Your task to perform on an android device: turn notification dots off Image 0: 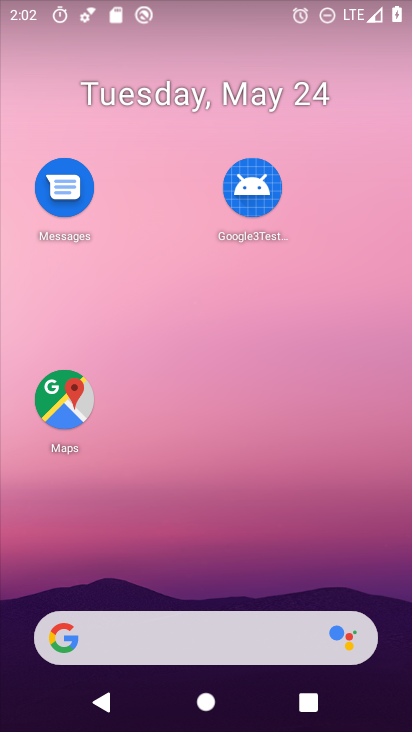
Step 0: drag from (222, 581) to (197, 0)
Your task to perform on an android device: turn notification dots off Image 1: 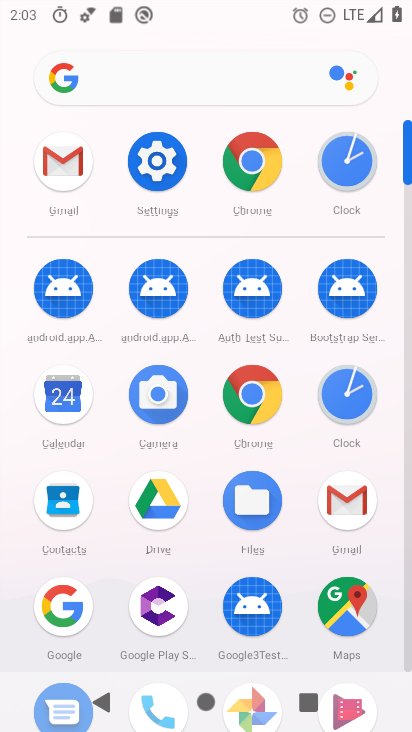
Step 1: click (162, 160)
Your task to perform on an android device: turn notification dots off Image 2: 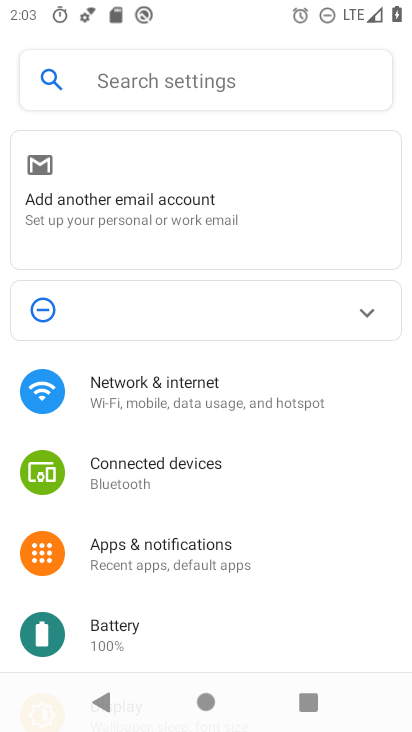
Step 2: drag from (137, 611) to (137, 258)
Your task to perform on an android device: turn notification dots off Image 3: 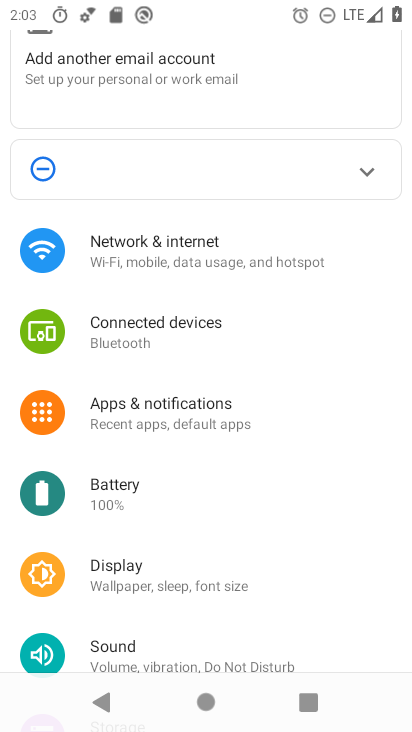
Step 3: click (146, 427)
Your task to perform on an android device: turn notification dots off Image 4: 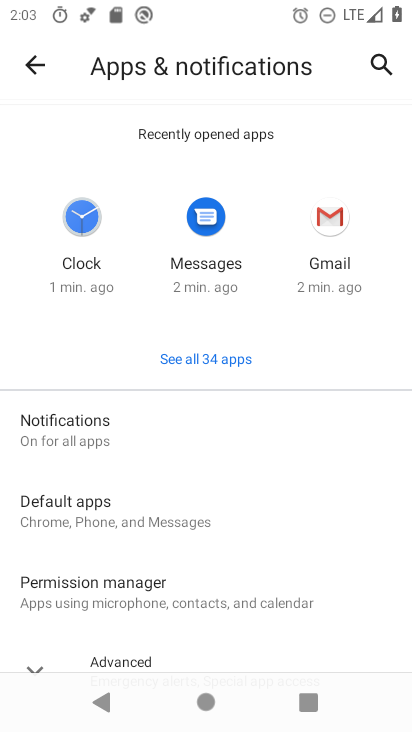
Step 4: click (76, 433)
Your task to perform on an android device: turn notification dots off Image 5: 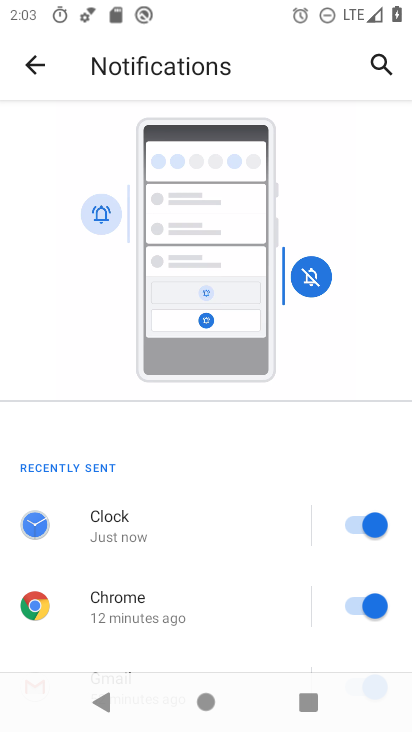
Step 5: click (206, 255)
Your task to perform on an android device: turn notification dots off Image 6: 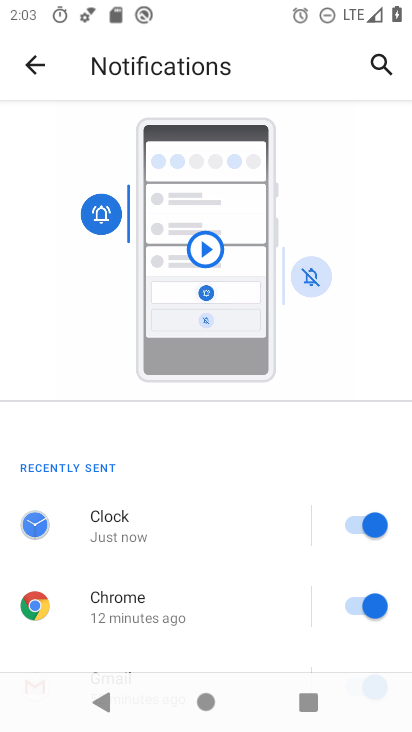
Step 6: drag from (137, 380) to (137, 290)
Your task to perform on an android device: turn notification dots off Image 7: 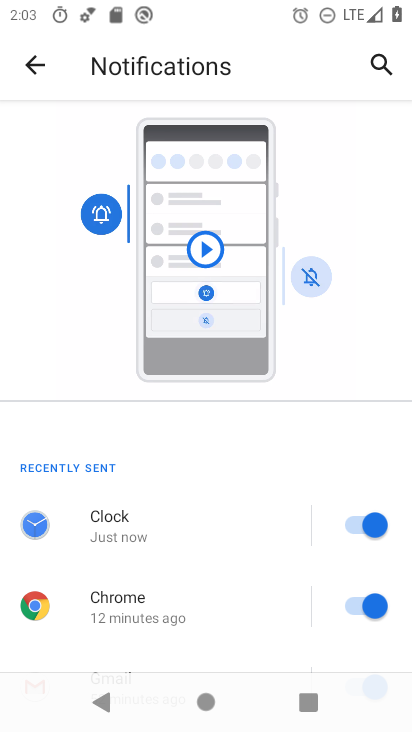
Step 7: click (219, 226)
Your task to perform on an android device: turn notification dots off Image 8: 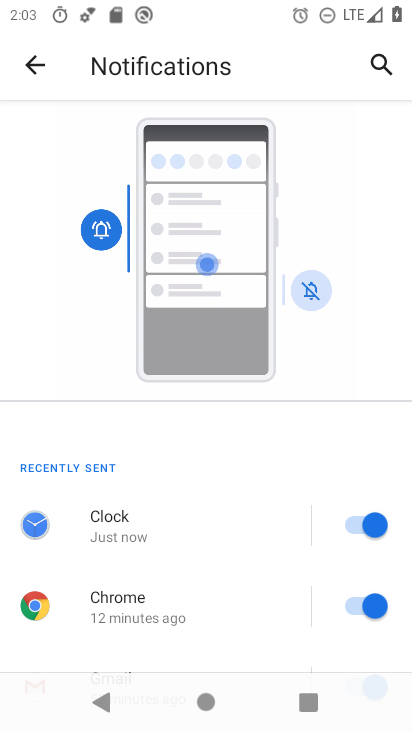
Step 8: drag from (166, 499) to (166, 193)
Your task to perform on an android device: turn notification dots off Image 9: 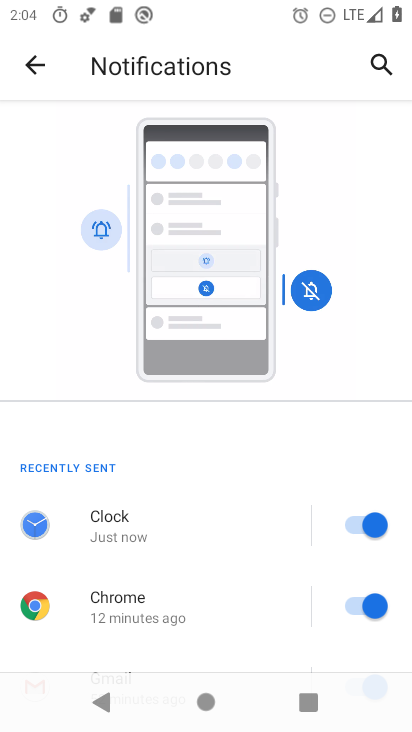
Step 9: drag from (264, 529) to (314, 223)
Your task to perform on an android device: turn notification dots off Image 10: 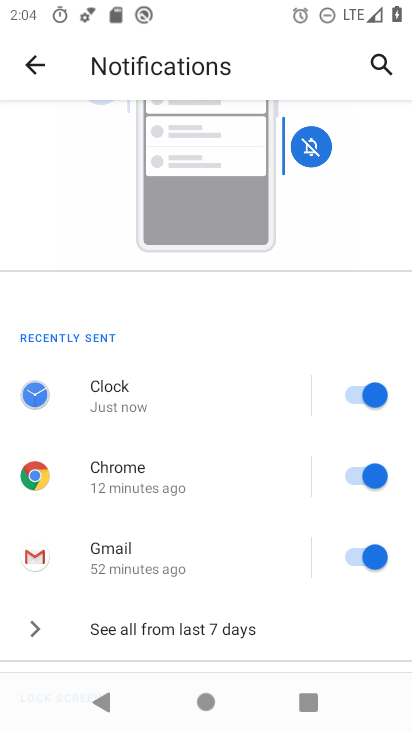
Step 10: click (163, 205)
Your task to perform on an android device: turn notification dots off Image 11: 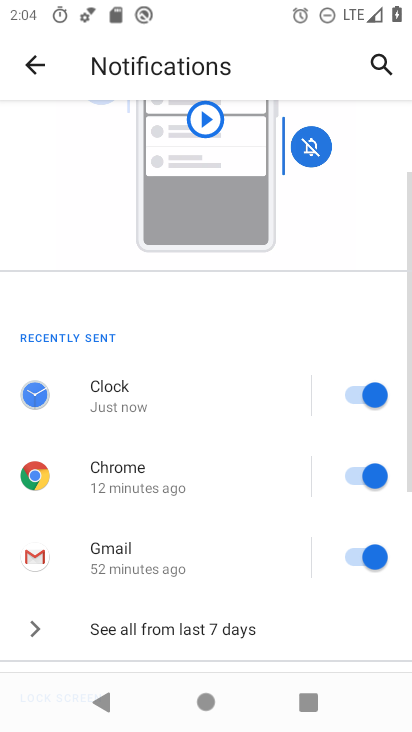
Step 11: drag from (58, 585) to (196, 265)
Your task to perform on an android device: turn notification dots off Image 12: 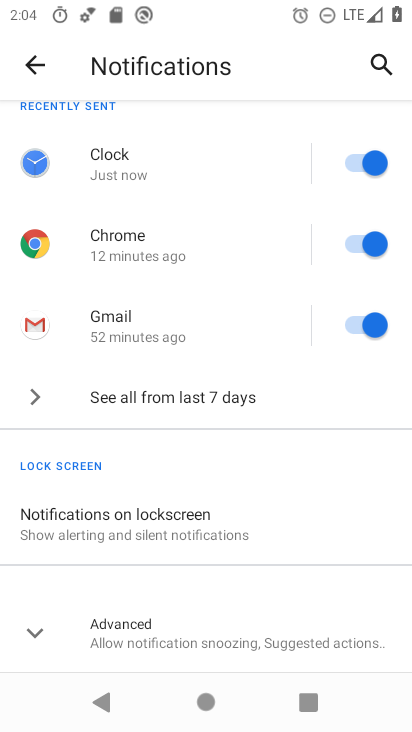
Step 12: click (123, 626)
Your task to perform on an android device: turn notification dots off Image 13: 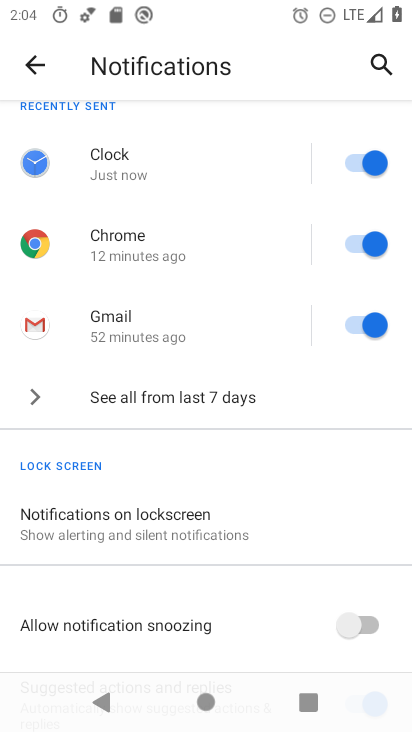
Step 13: task complete